Your task to perform on an android device: When is my next meeting? Image 0: 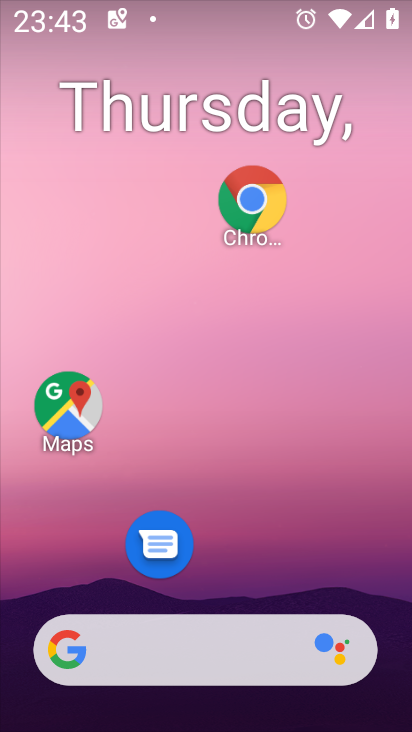
Step 0: click (205, 113)
Your task to perform on an android device: When is my next meeting? Image 1: 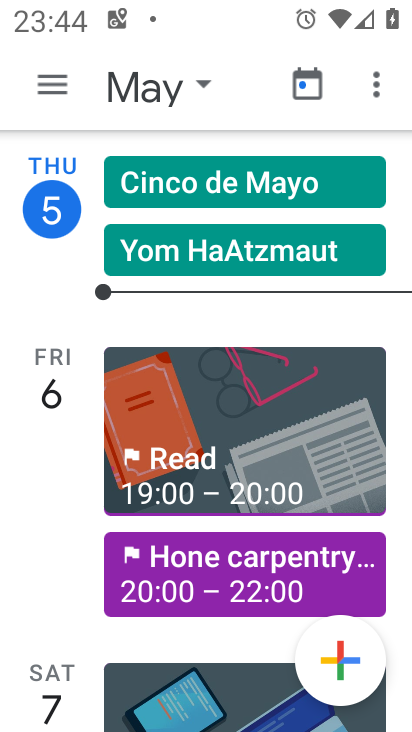
Step 1: click (34, 90)
Your task to perform on an android device: When is my next meeting? Image 2: 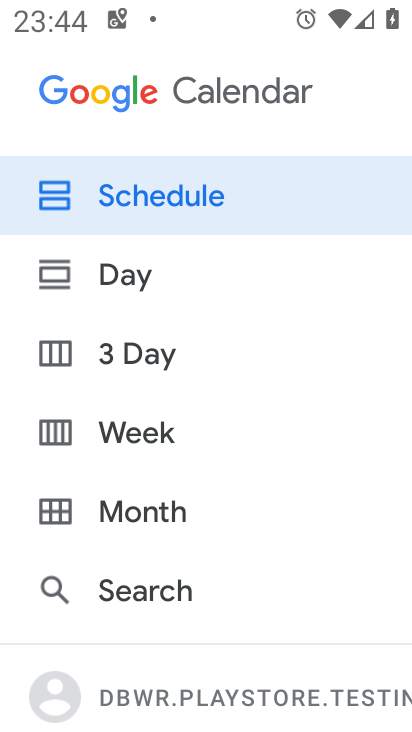
Step 2: task complete